Your task to perform on an android device: Clear the cart on target. Search for "amazon basics triple a" on target, select the first entry, add it to the cart, then select checkout. Image 0: 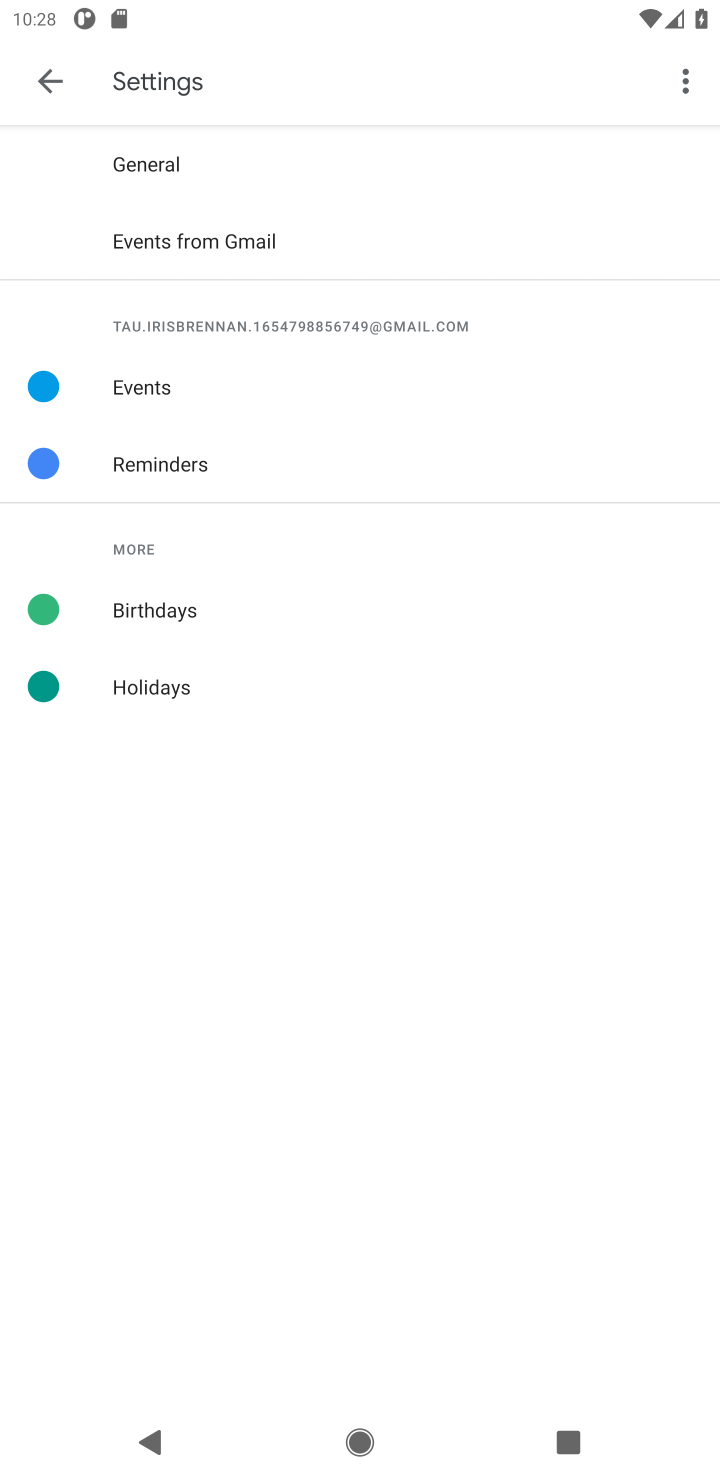
Step 0: press home button
Your task to perform on an android device: Clear the cart on target. Search for "amazon basics triple a" on target, select the first entry, add it to the cart, then select checkout. Image 1: 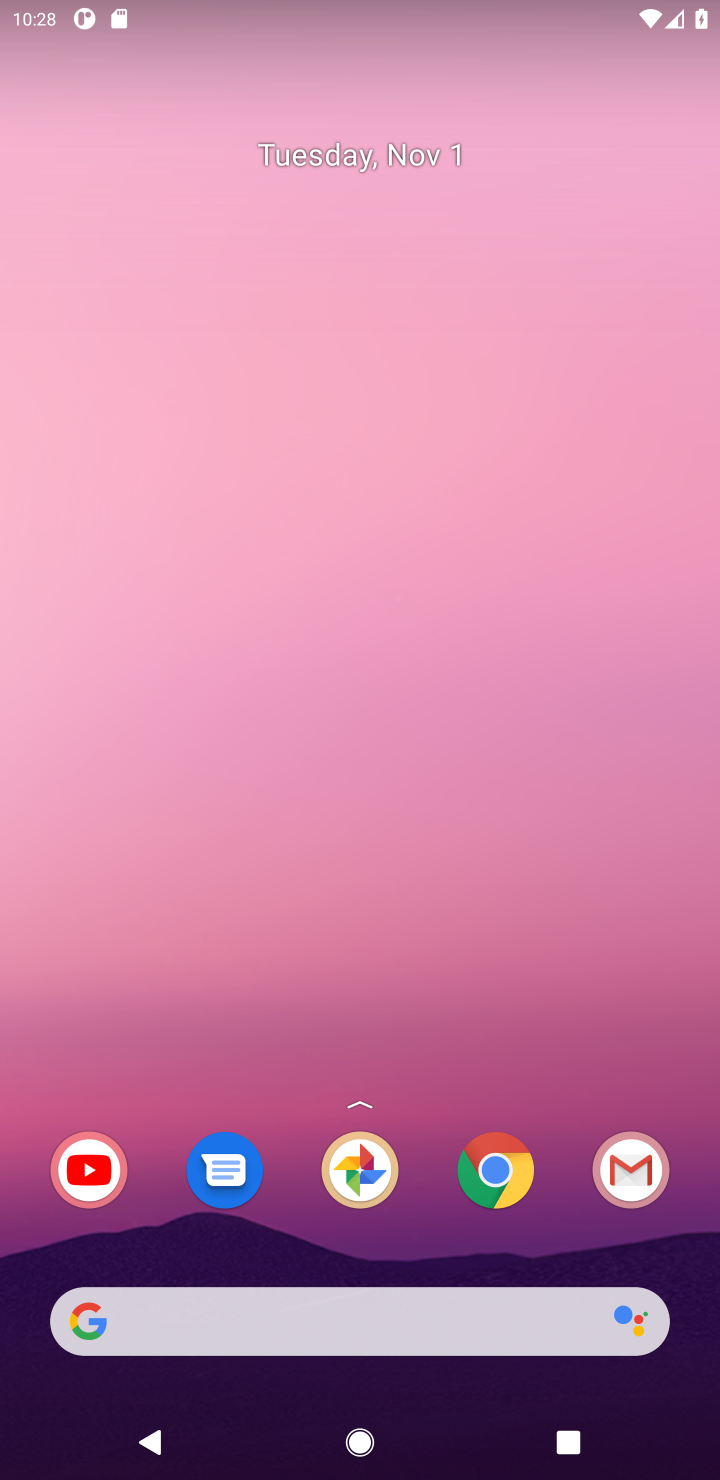
Step 1: click (533, 1194)
Your task to perform on an android device: Clear the cart on target. Search for "amazon basics triple a" on target, select the first entry, add it to the cart, then select checkout. Image 2: 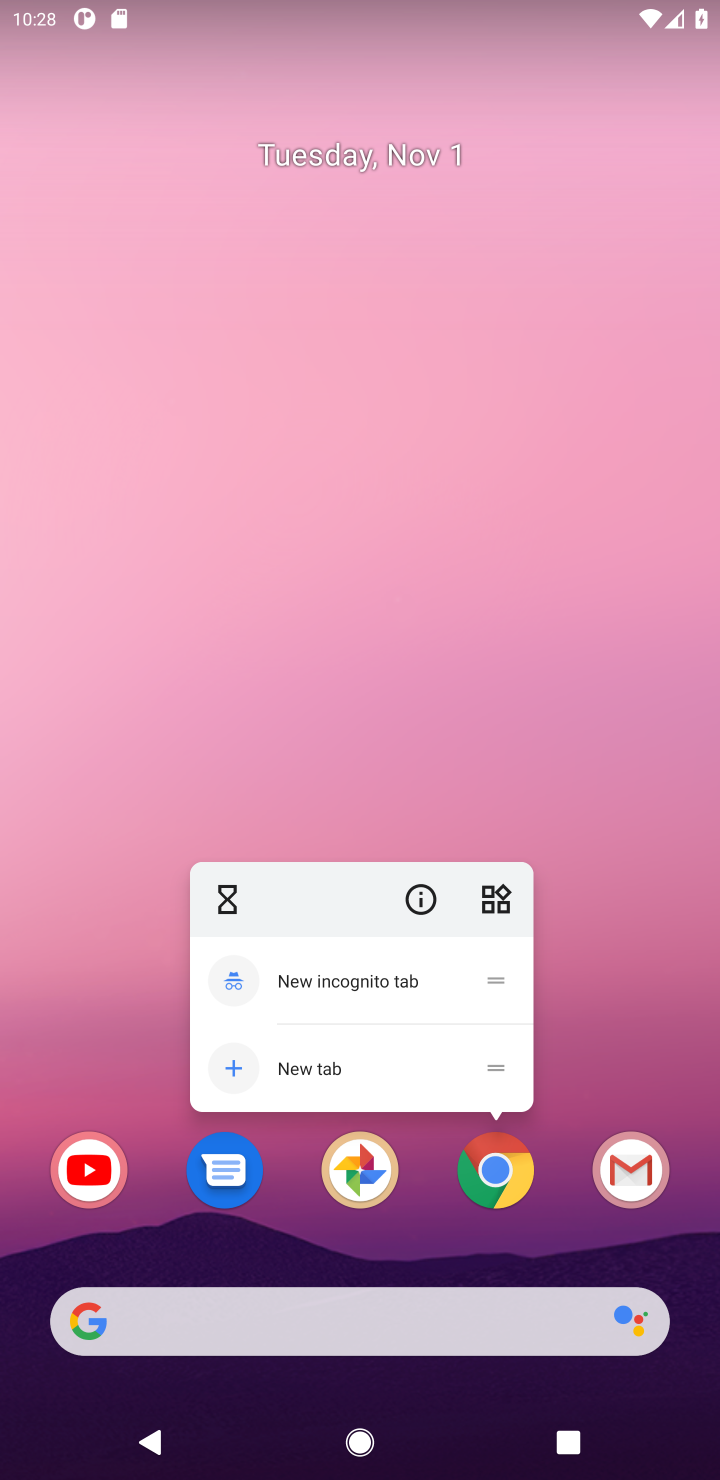
Step 2: click (503, 1192)
Your task to perform on an android device: Clear the cart on target. Search for "amazon basics triple a" on target, select the first entry, add it to the cart, then select checkout. Image 3: 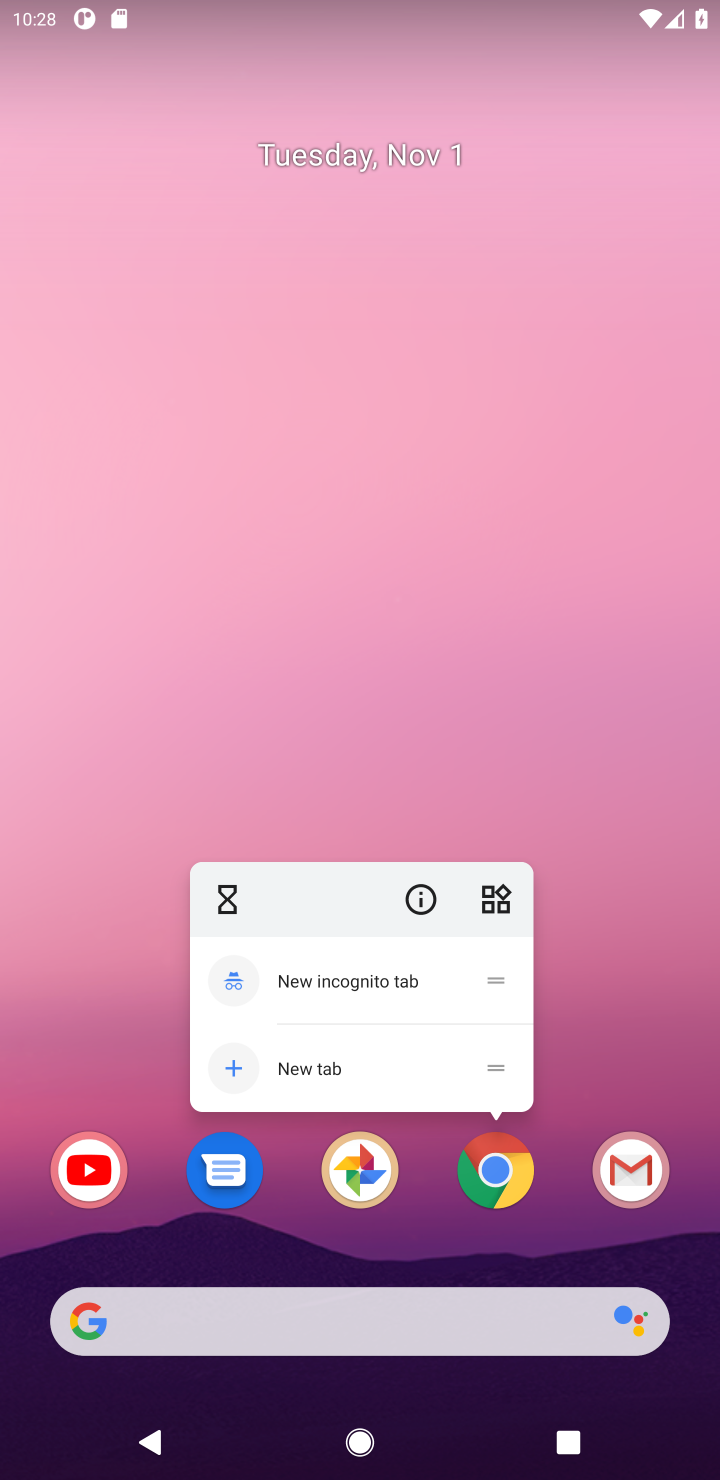
Step 3: click (495, 1189)
Your task to perform on an android device: Clear the cart on target. Search for "amazon basics triple a" on target, select the first entry, add it to the cart, then select checkout. Image 4: 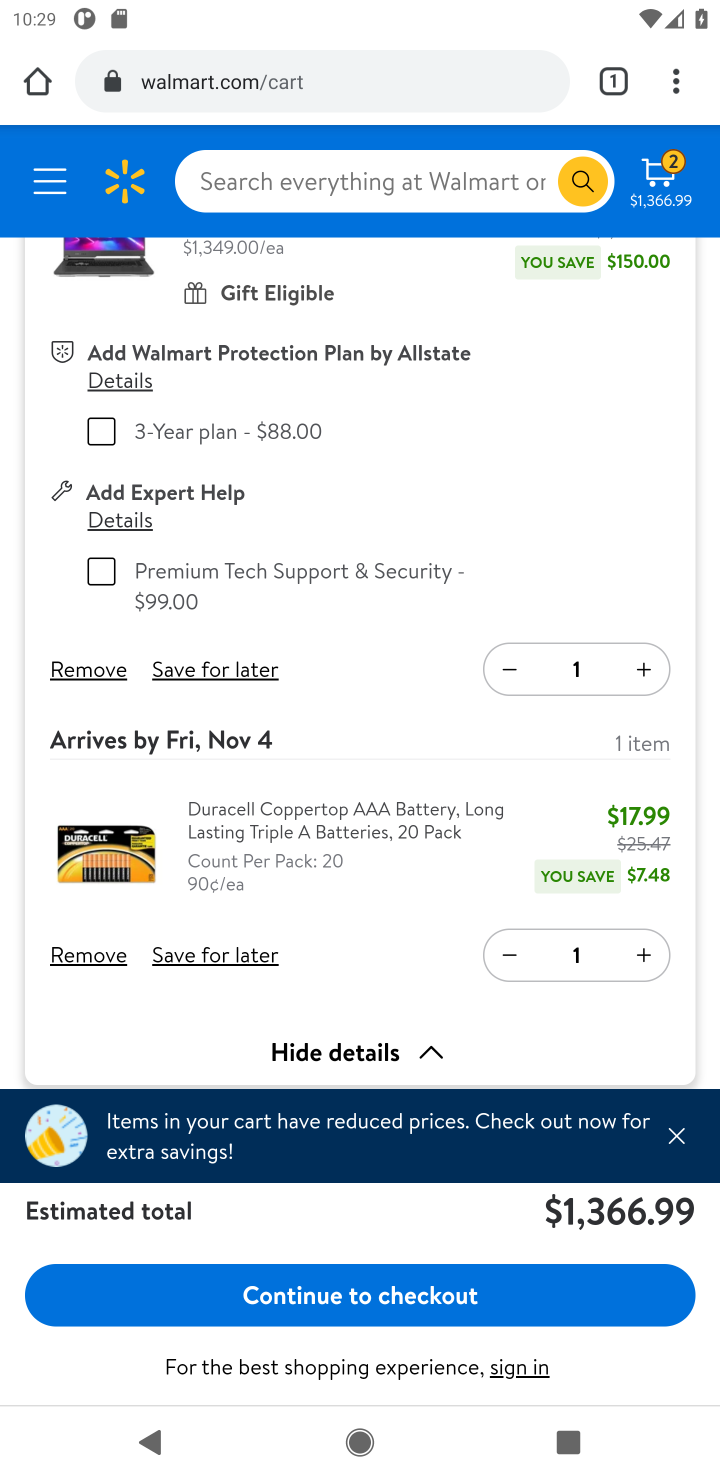
Step 4: click (354, 102)
Your task to perform on an android device: Clear the cart on target. Search for "amazon basics triple a" on target, select the first entry, add it to the cart, then select checkout. Image 5: 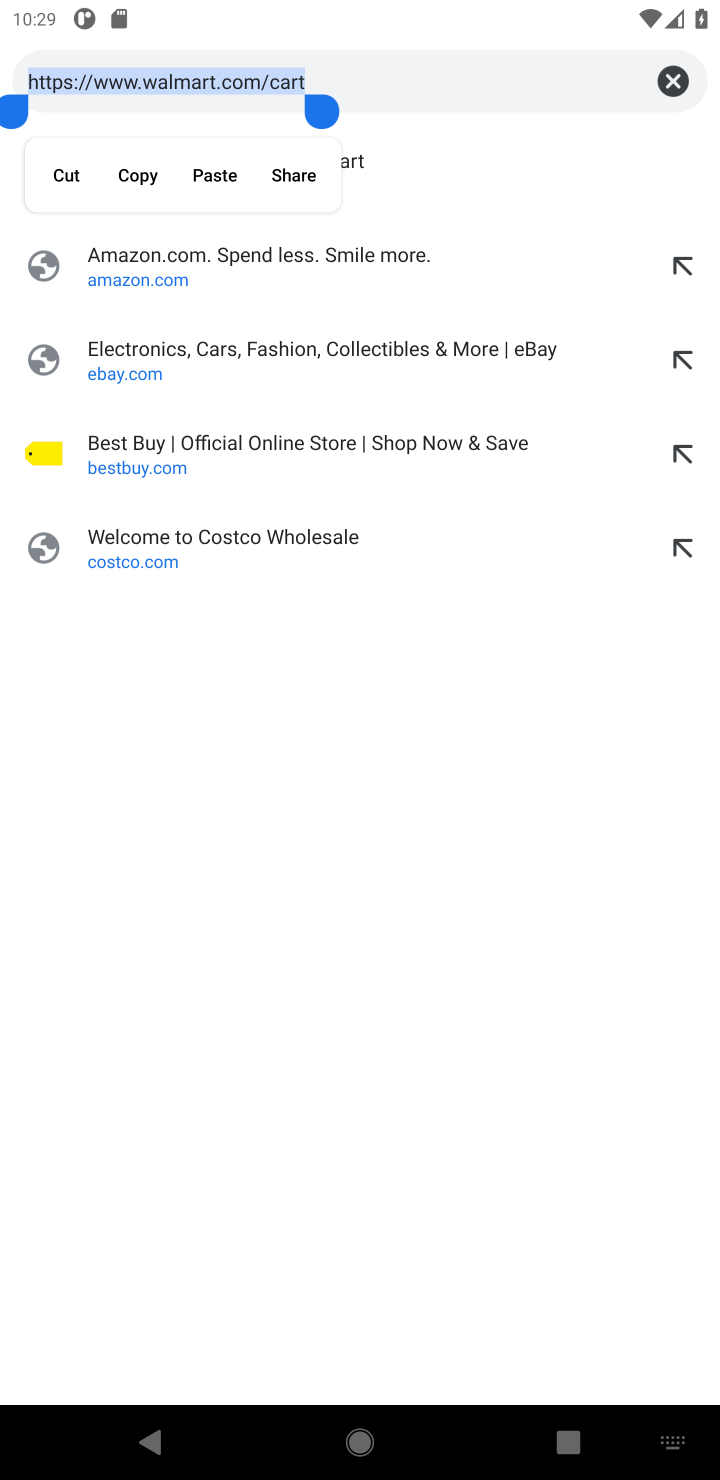
Step 5: type "target"
Your task to perform on an android device: Clear the cart on target. Search for "amazon basics triple a" on target, select the first entry, add it to the cart, then select checkout. Image 6: 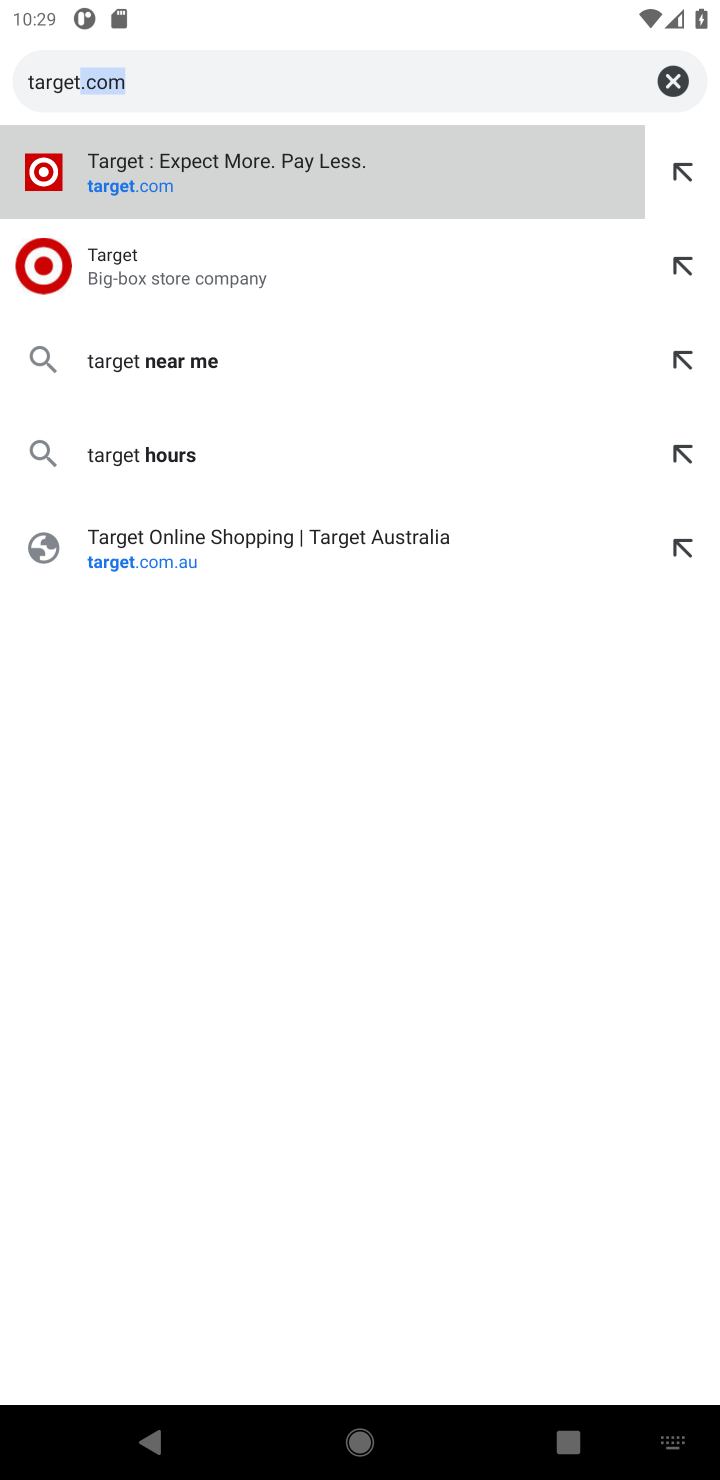
Step 6: type ""
Your task to perform on an android device: Clear the cart on target. Search for "amazon basics triple a" on target, select the first entry, add it to the cart, then select checkout. Image 7: 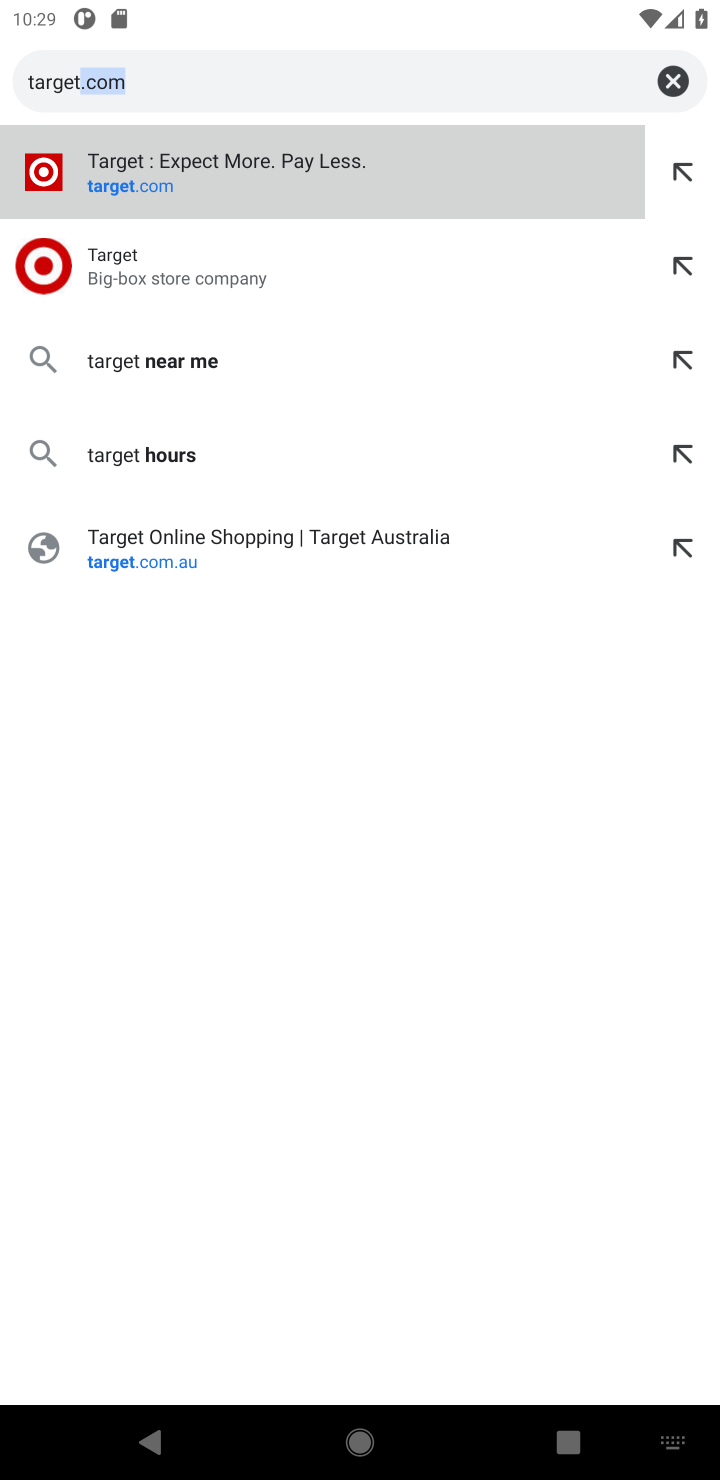
Step 7: press enter
Your task to perform on an android device: Clear the cart on target. Search for "amazon basics triple a" on target, select the first entry, add it to the cart, then select checkout. Image 8: 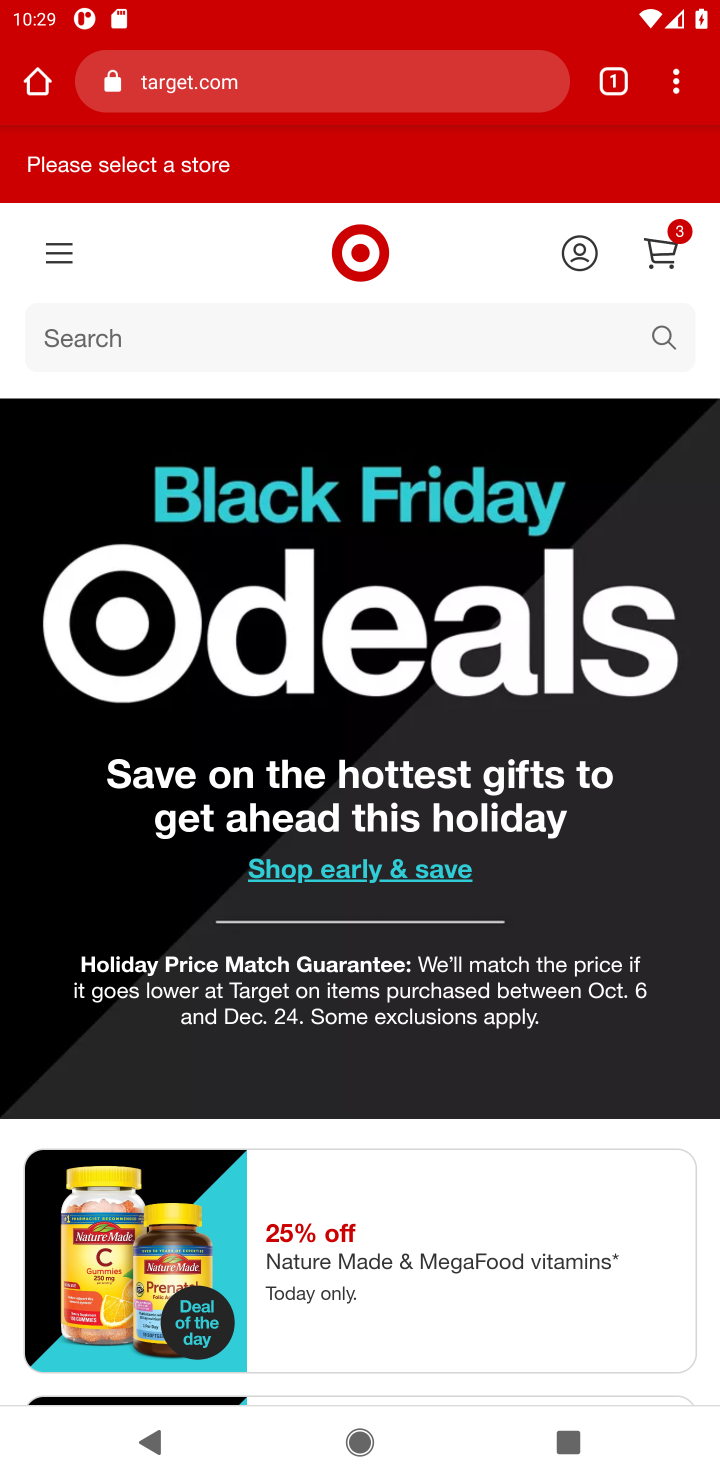
Step 8: click (667, 258)
Your task to perform on an android device: Clear the cart on target. Search for "amazon basics triple a" on target, select the first entry, add it to the cart, then select checkout. Image 9: 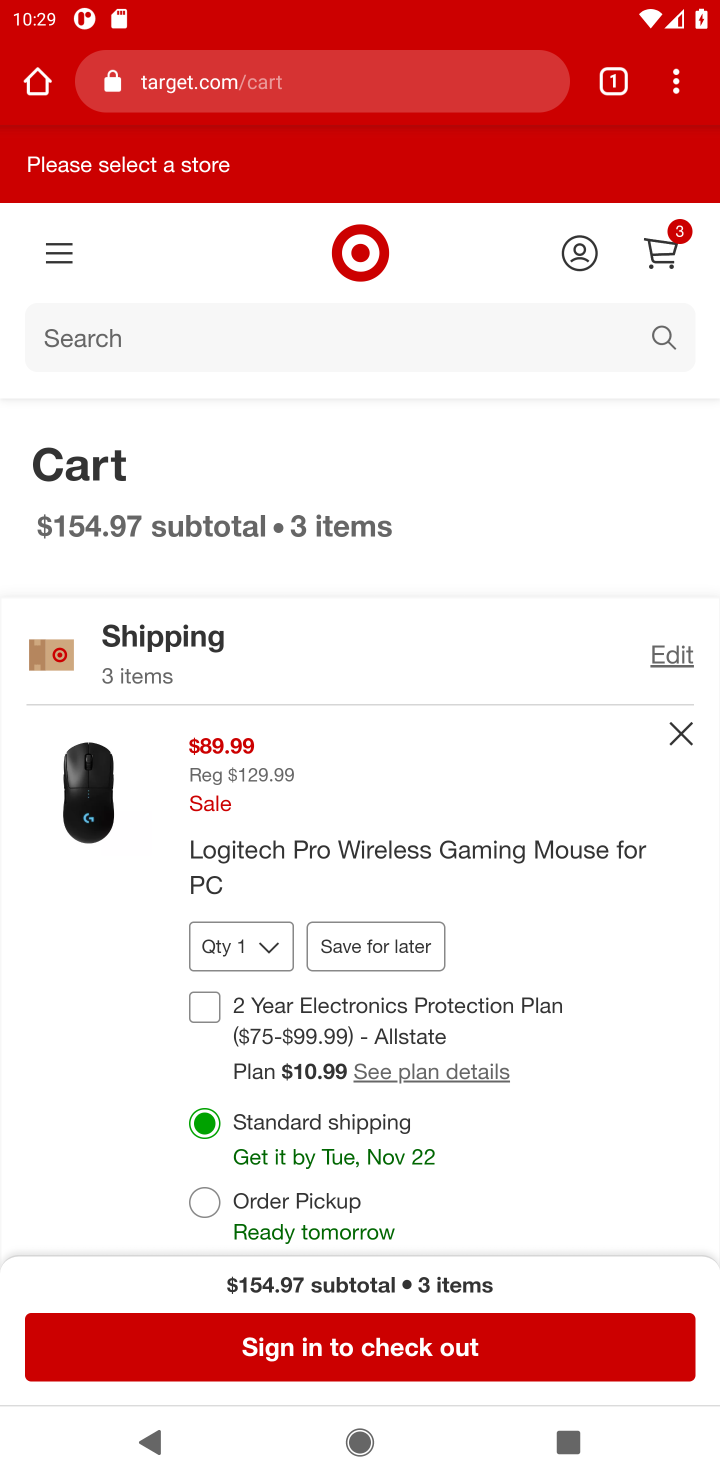
Step 9: click (677, 742)
Your task to perform on an android device: Clear the cart on target. Search for "amazon basics triple a" on target, select the first entry, add it to the cart, then select checkout. Image 10: 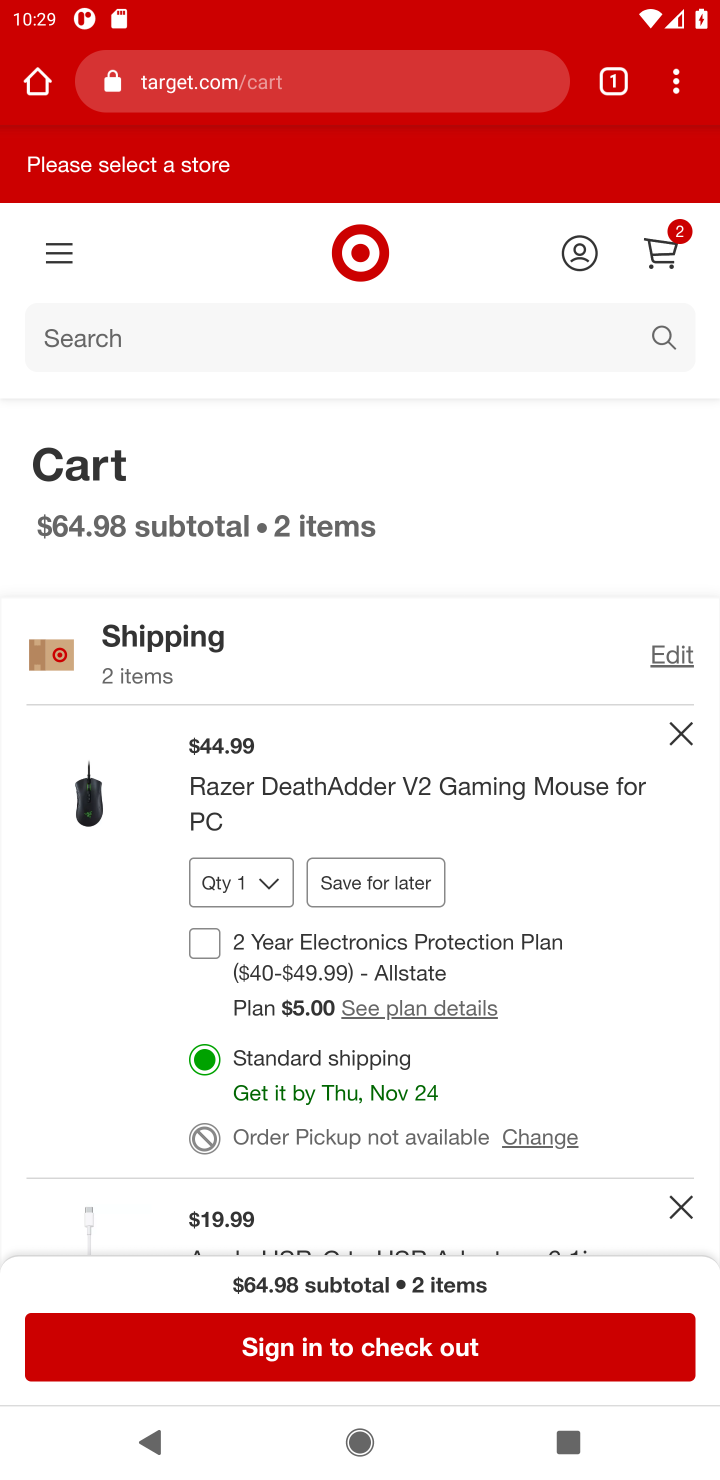
Step 10: click (677, 742)
Your task to perform on an android device: Clear the cart on target. Search for "amazon basics triple a" on target, select the first entry, add it to the cart, then select checkout. Image 11: 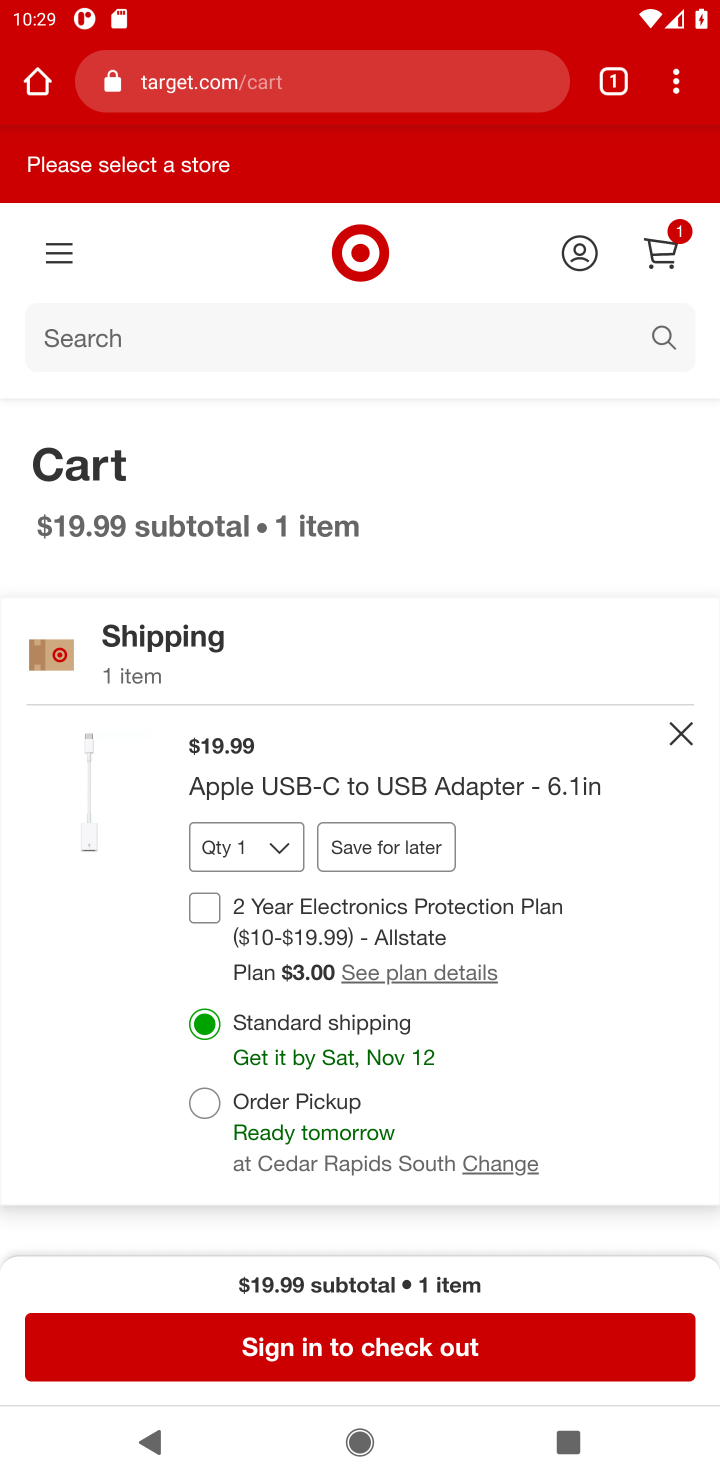
Step 11: click (677, 742)
Your task to perform on an android device: Clear the cart on target. Search for "amazon basics triple a" on target, select the first entry, add it to the cart, then select checkout. Image 12: 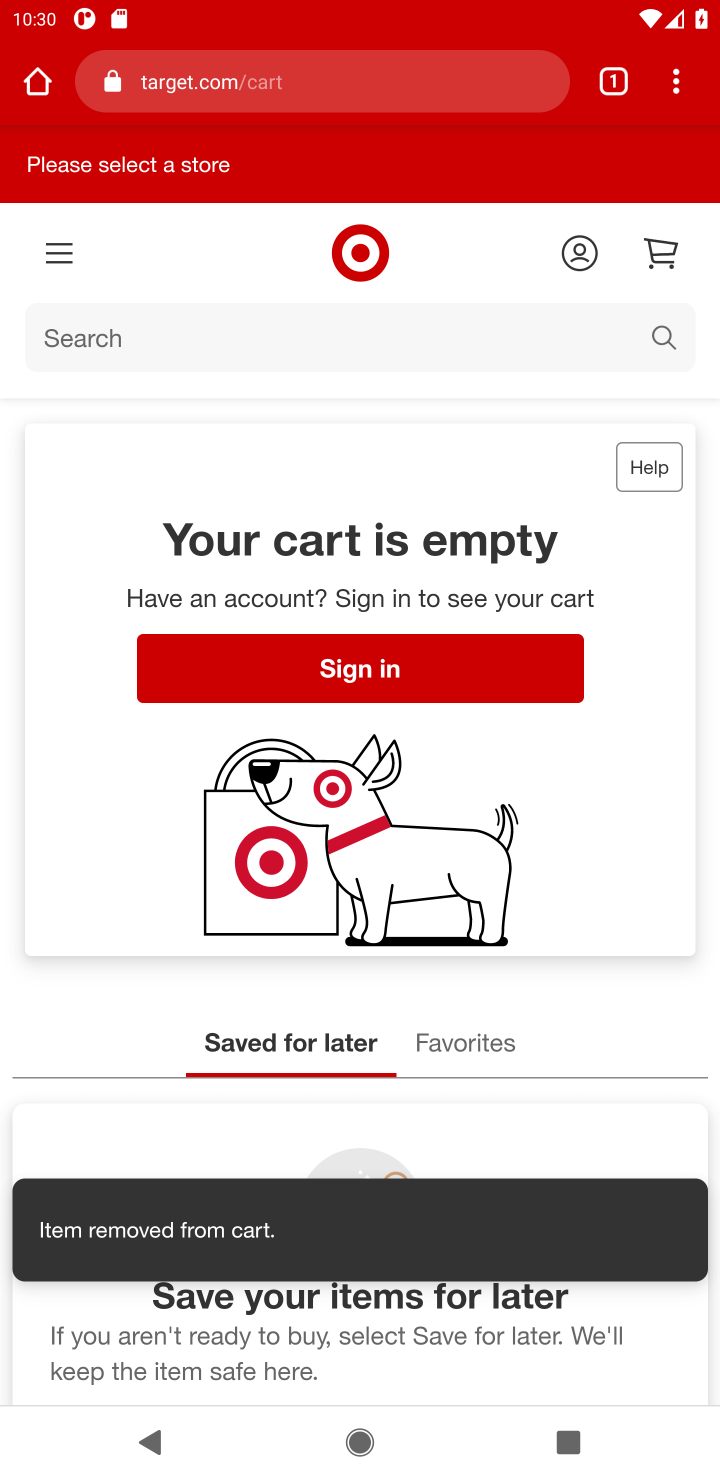
Step 12: click (473, 363)
Your task to perform on an android device: Clear the cart on target. Search for "amazon basics triple a" on target, select the first entry, add it to the cart, then select checkout. Image 13: 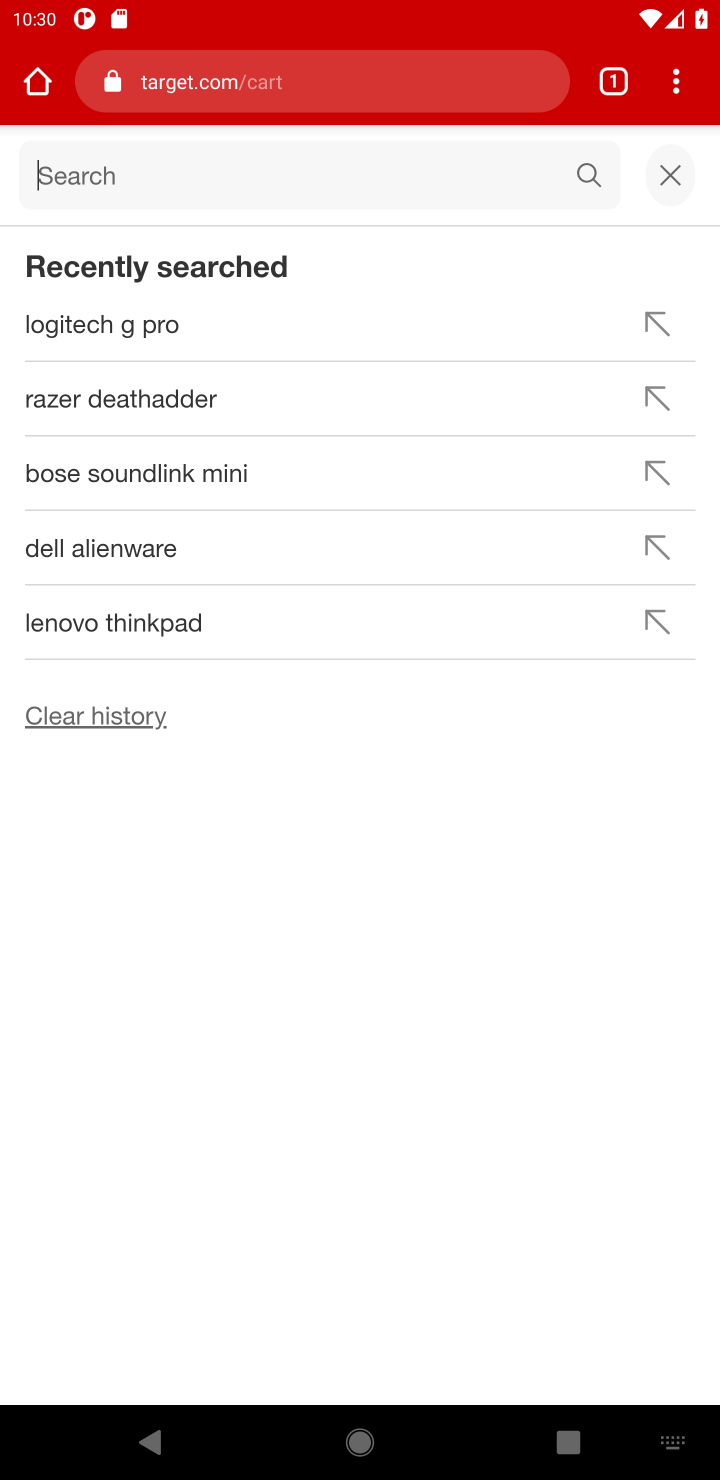
Step 13: type "amazon basics triple a"
Your task to perform on an android device: Clear the cart on target. Search for "amazon basics triple a" on target, select the first entry, add it to the cart, then select checkout. Image 14: 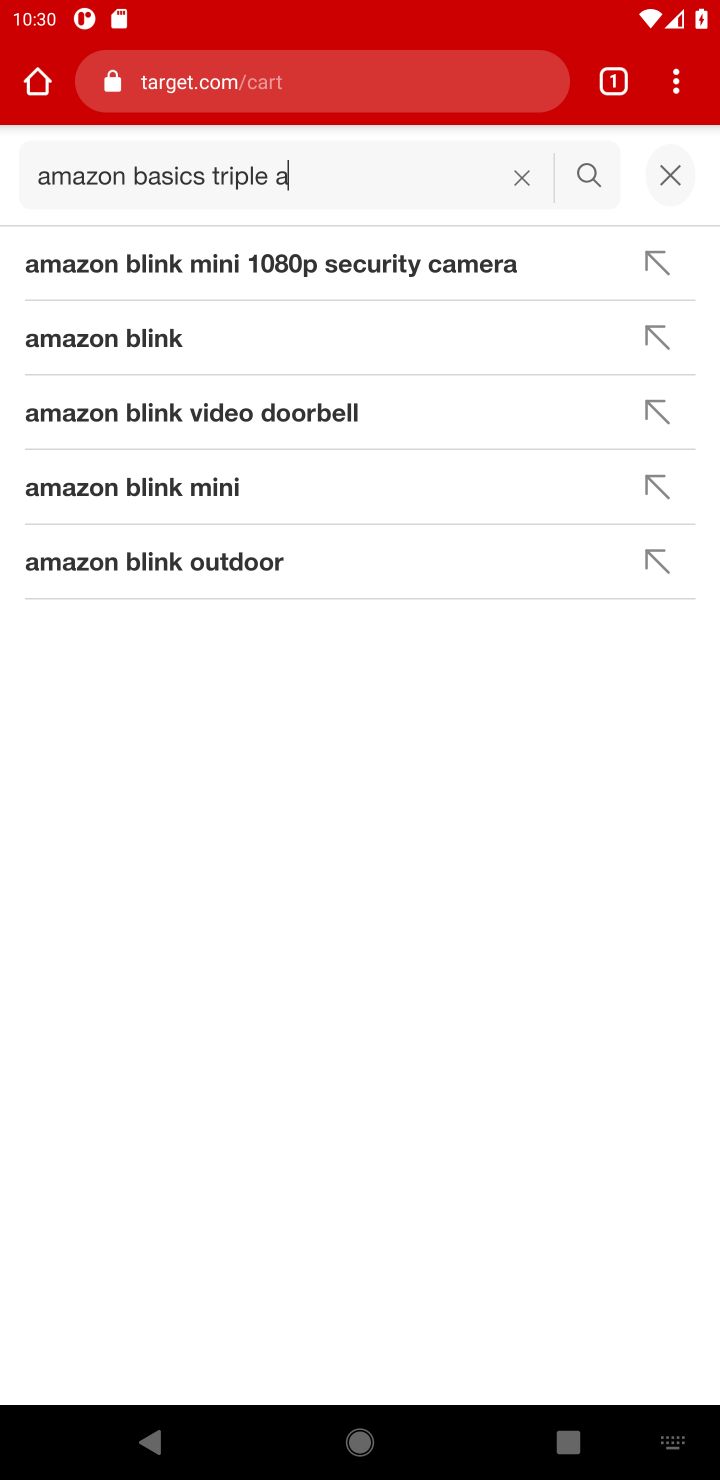
Step 14: type ""
Your task to perform on an android device: Clear the cart on target. Search for "amazon basics triple a" on target, select the first entry, add it to the cart, then select checkout. Image 15: 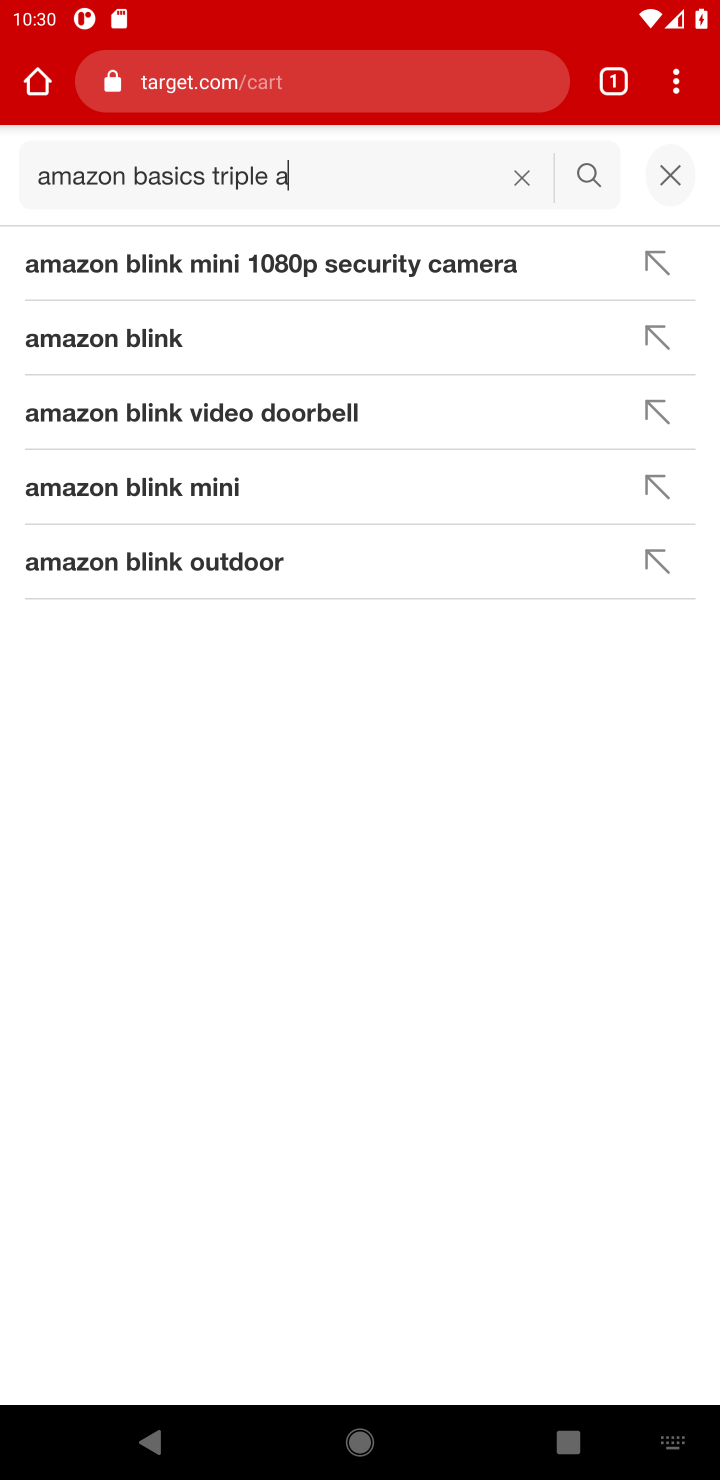
Step 15: press enter
Your task to perform on an android device: Clear the cart on target. Search for "amazon basics triple a" on target, select the first entry, add it to the cart, then select checkout. Image 16: 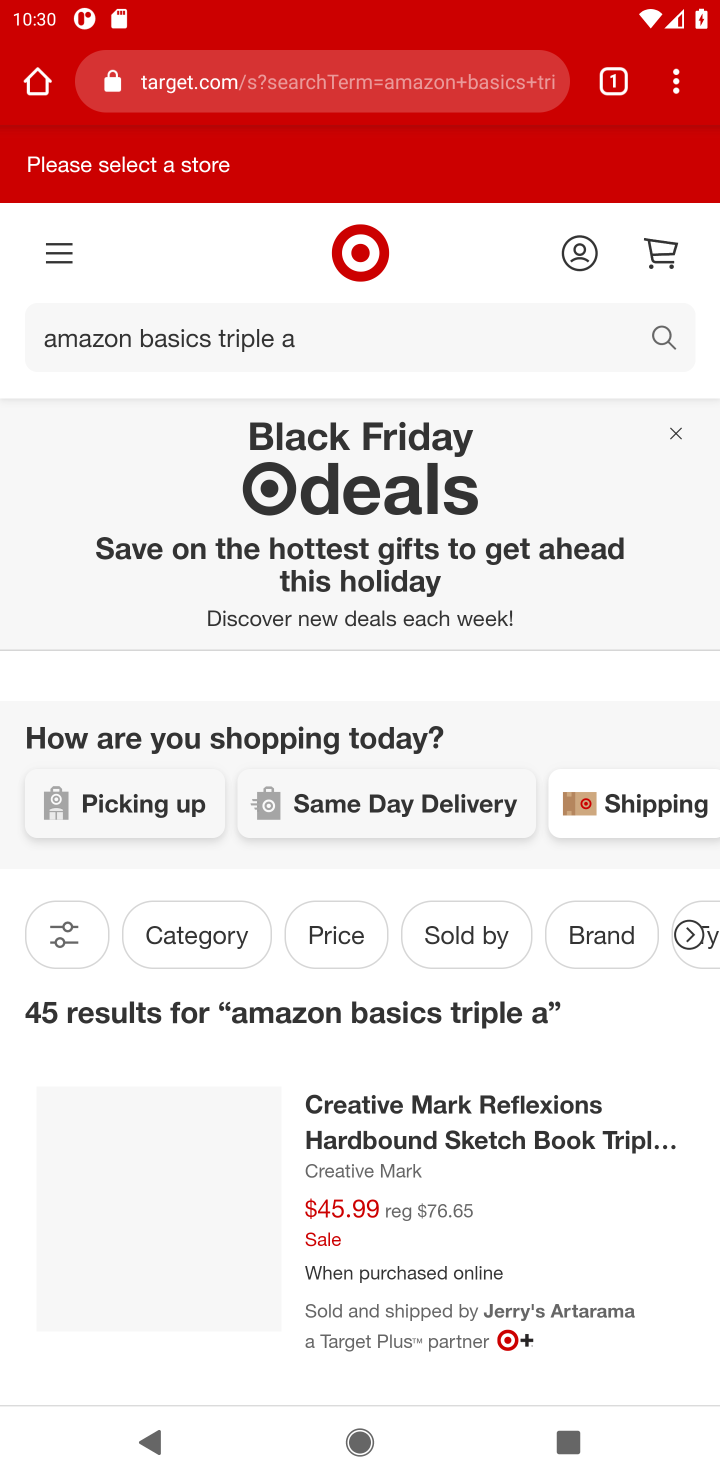
Step 16: task complete